Your task to perform on an android device: open wifi settings Image 0: 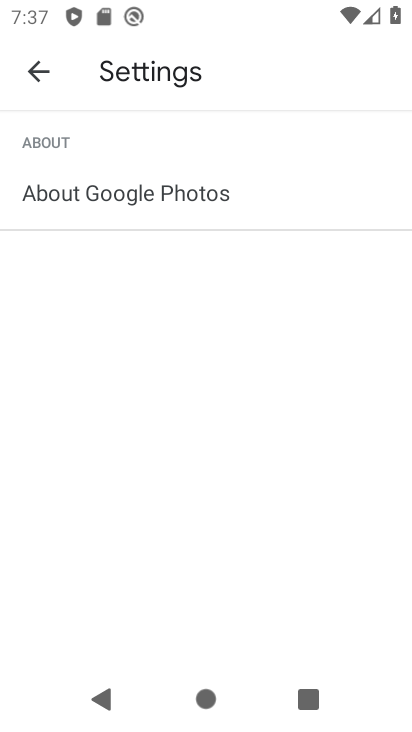
Step 0: press home button
Your task to perform on an android device: open wifi settings Image 1: 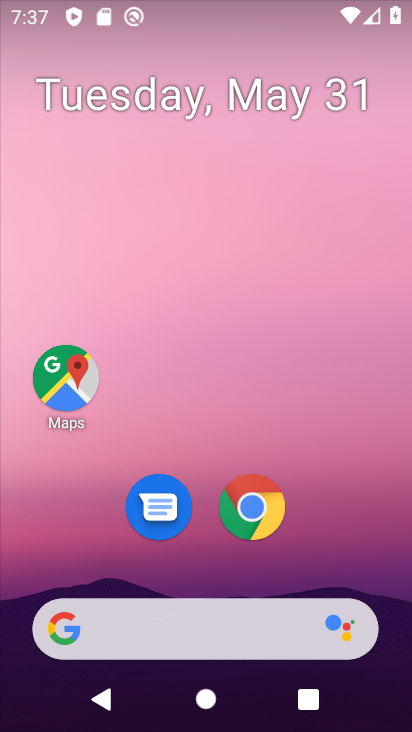
Step 1: drag from (302, 529) to (239, 155)
Your task to perform on an android device: open wifi settings Image 2: 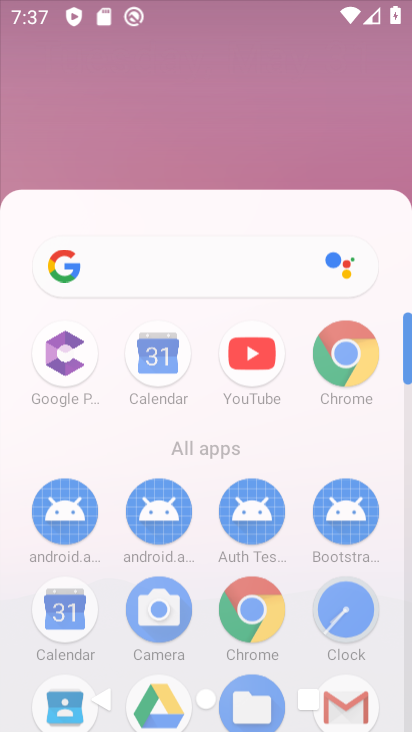
Step 2: click (237, 146)
Your task to perform on an android device: open wifi settings Image 3: 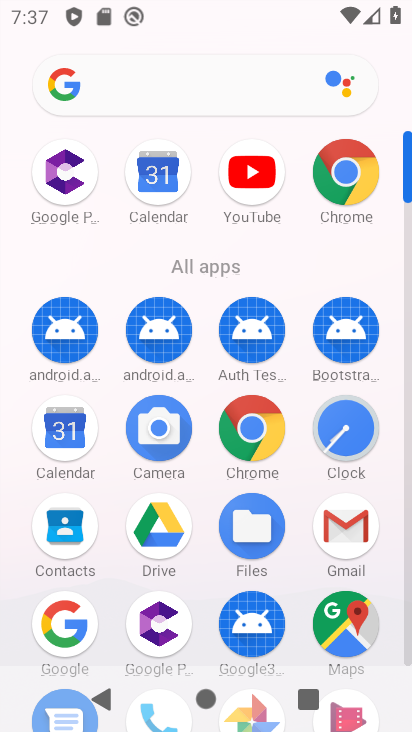
Step 3: drag from (303, 612) to (342, 278)
Your task to perform on an android device: open wifi settings Image 4: 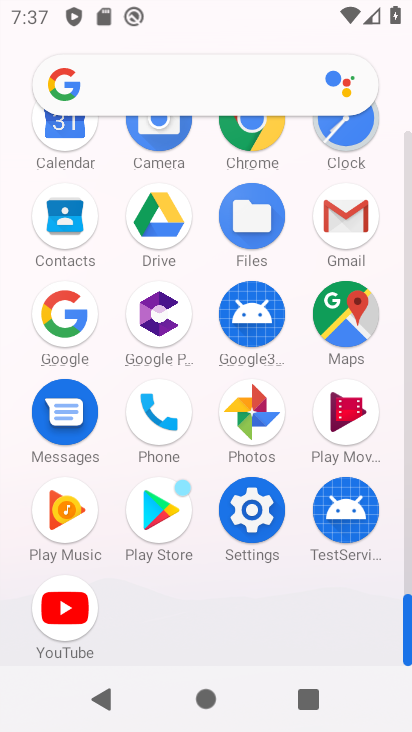
Step 4: click (254, 531)
Your task to perform on an android device: open wifi settings Image 5: 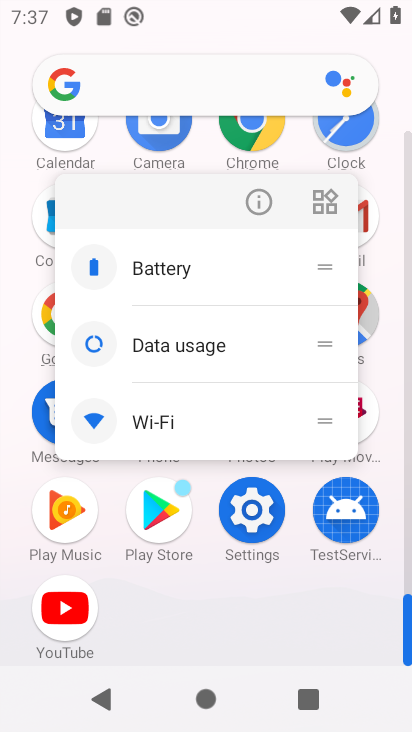
Step 5: click (257, 523)
Your task to perform on an android device: open wifi settings Image 6: 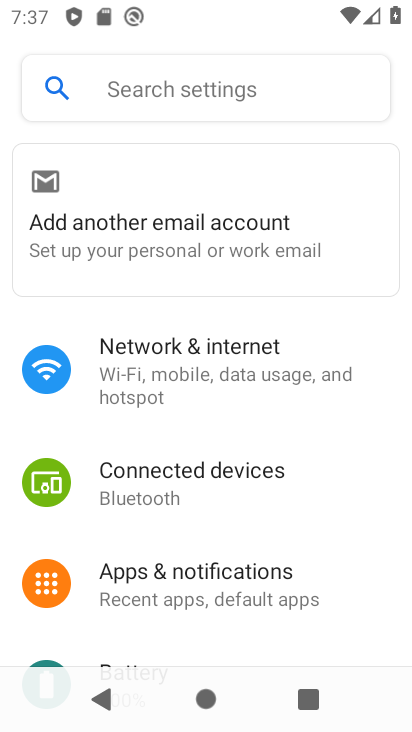
Step 6: click (146, 354)
Your task to perform on an android device: open wifi settings Image 7: 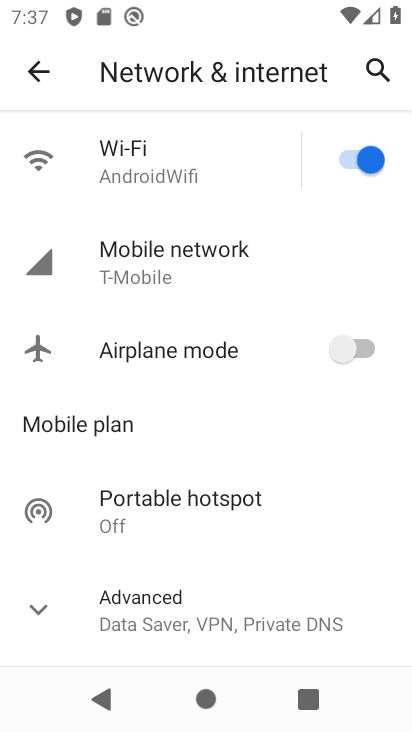
Step 7: click (158, 181)
Your task to perform on an android device: open wifi settings Image 8: 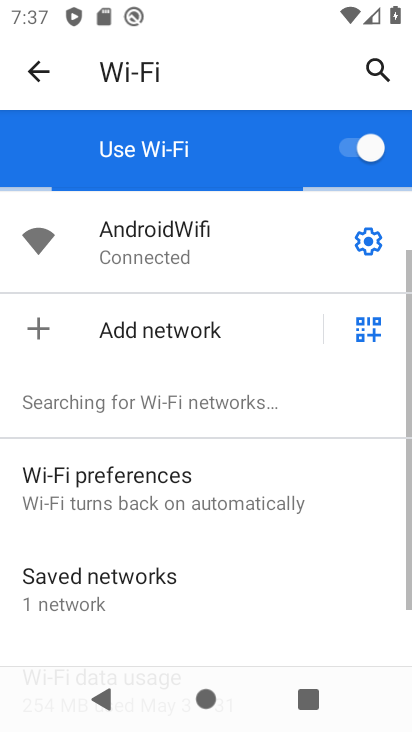
Step 8: click (368, 240)
Your task to perform on an android device: open wifi settings Image 9: 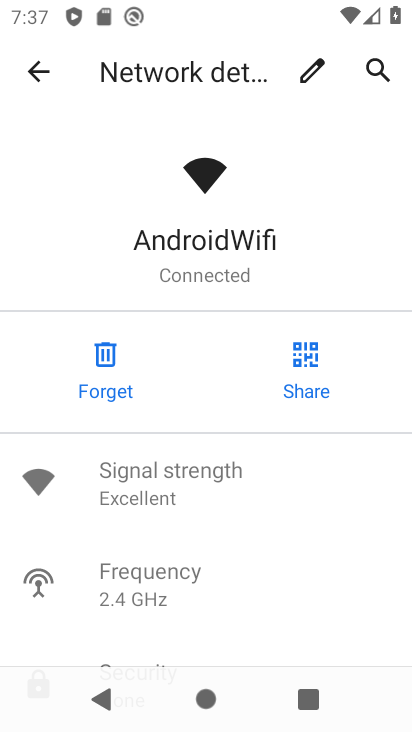
Step 9: task complete